Your task to perform on an android device: add a contact in the contacts app Image 0: 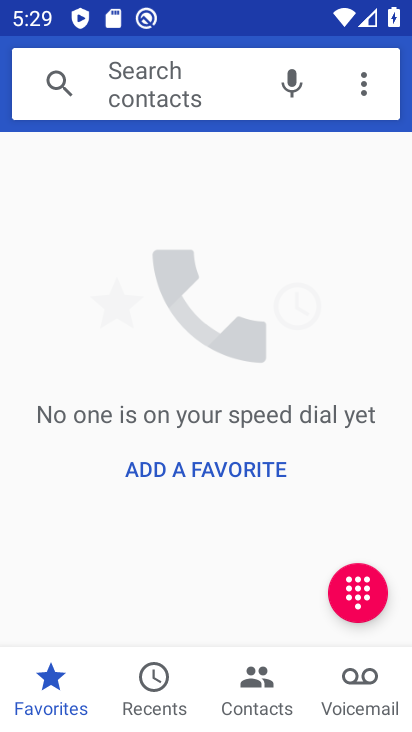
Step 0: press home button
Your task to perform on an android device: add a contact in the contacts app Image 1: 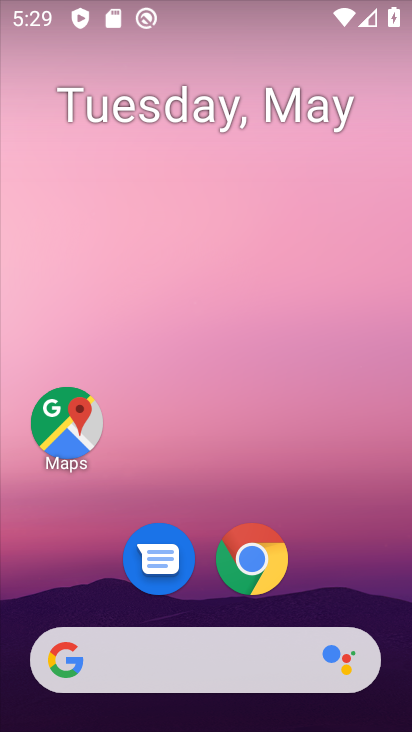
Step 1: drag from (212, 613) to (262, 281)
Your task to perform on an android device: add a contact in the contacts app Image 2: 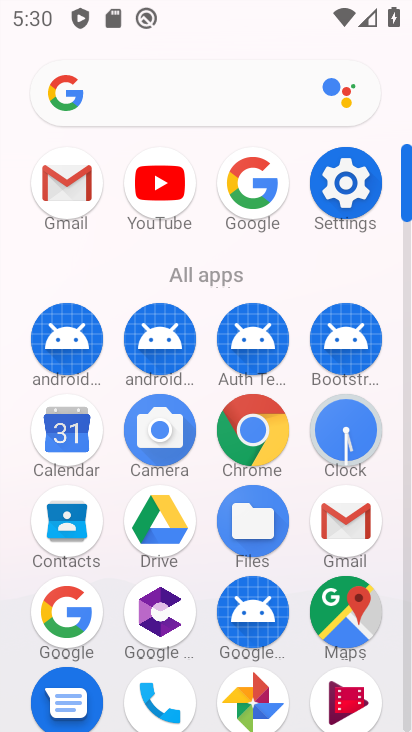
Step 2: click (72, 535)
Your task to perform on an android device: add a contact in the contacts app Image 3: 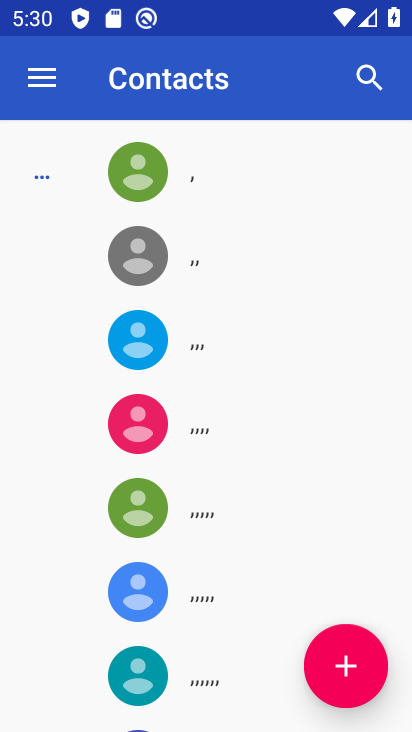
Step 3: click (319, 678)
Your task to perform on an android device: add a contact in the contacts app Image 4: 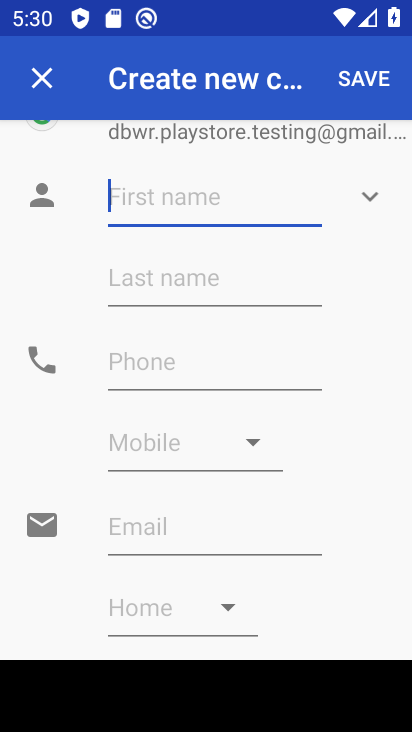
Step 4: type "Narayan"
Your task to perform on an android device: add a contact in the contacts app Image 5: 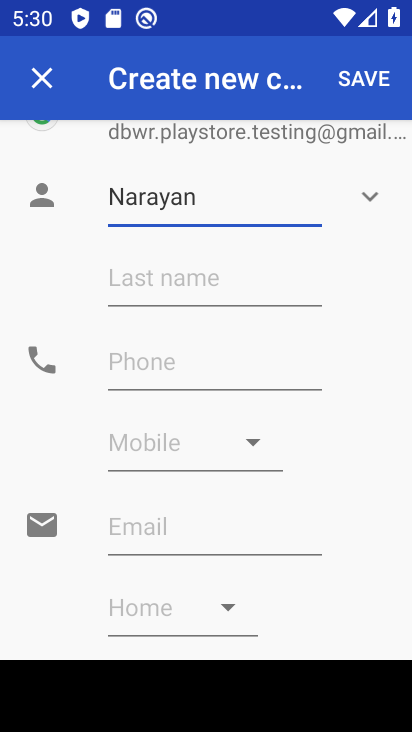
Step 5: click (233, 295)
Your task to perform on an android device: add a contact in the contacts app Image 6: 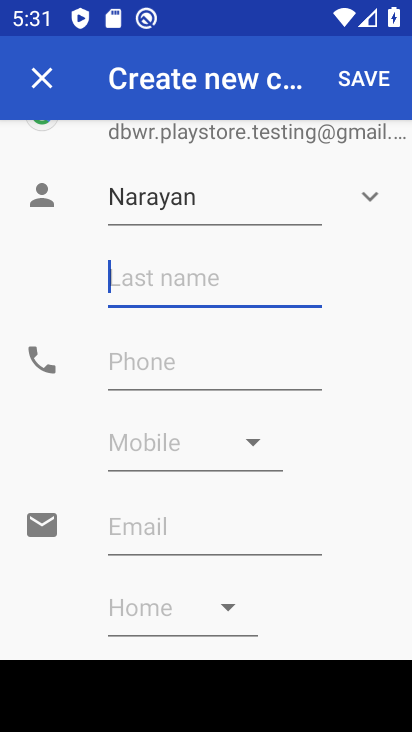
Step 6: type "vaishnav"
Your task to perform on an android device: add a contact in the contacts app Image 7: 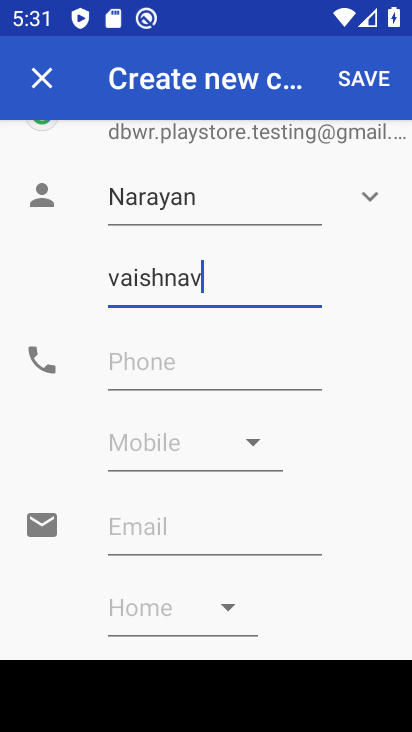
Step 7: click (275, 372)
Your task to perform on an android device: add a contact in the contacts app Image 8: 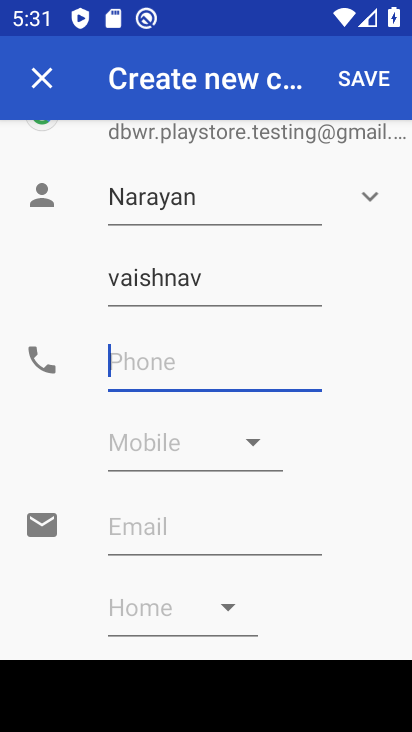
Step 8: type "8090809000"
Your task to perform on an android device: add a contact in the contacts app Image 9: 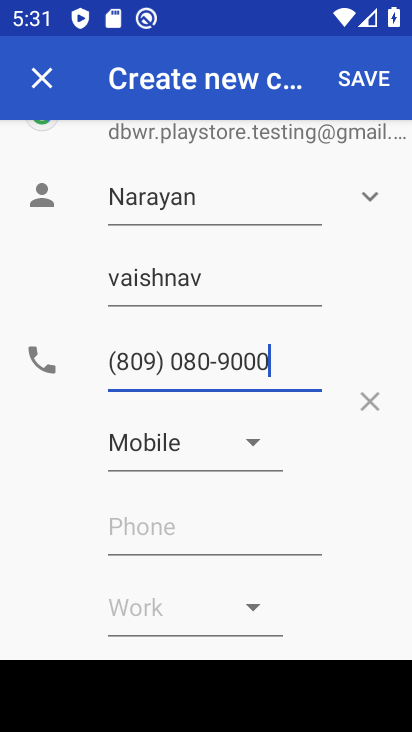
Step 9: click (372, 84)
Your task to perform on an android device: add a contact in the contacts app Image 10: 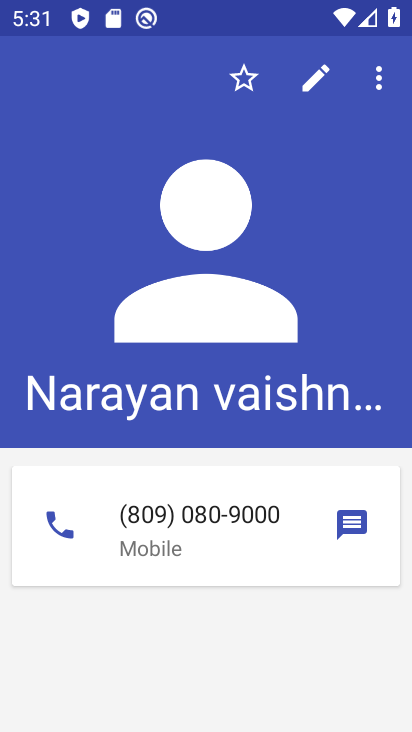
Step 10: task complete